Your task to perform on an android device: Go to Maps Image 0: 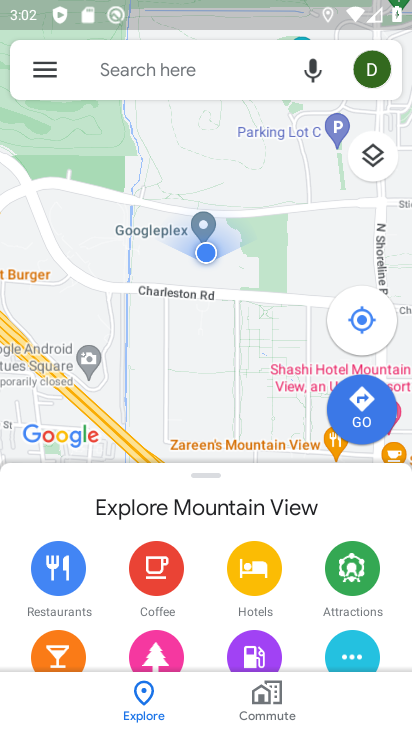
Step 0: task complete